Your task to perform on an android device: change notification settings in the gmail app Image 0: 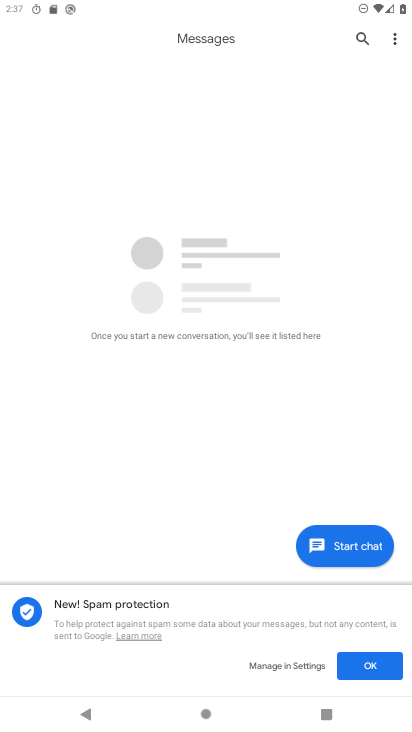
Step 0: press home button
Your task to perform on an android device: change notification settings in the gmail app Image 1: 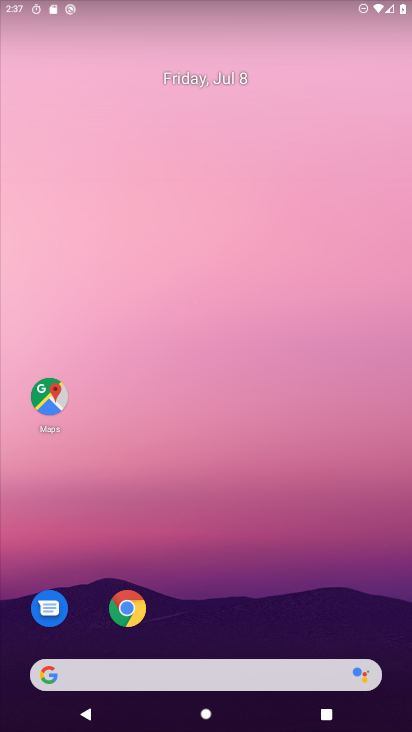
Step 1: drag from (261, 716) to (230, 126)
Your task to perform on an android device: change notification settings in the gmail app Image 2: 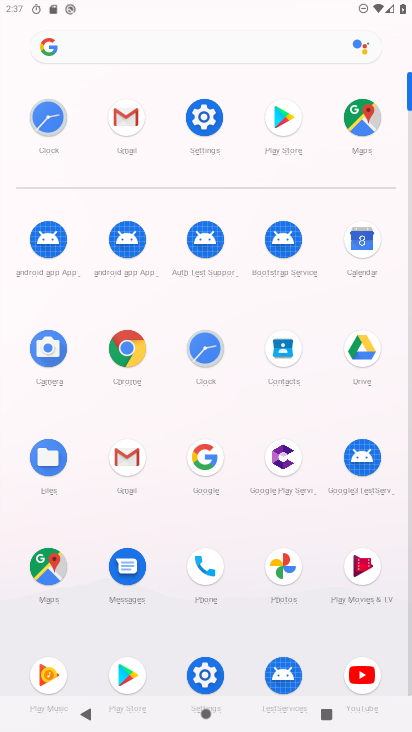
Step 2: click (124, 455)
Your task to perform on an android device: change notification settings in the gmail app Image 3: 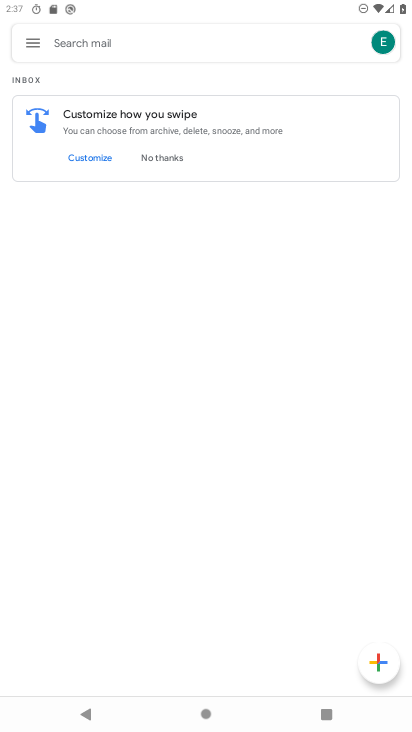
Step 3: click (36, 43)
Your task to perform on an android device: change notification settings in the gmail app Image 4: 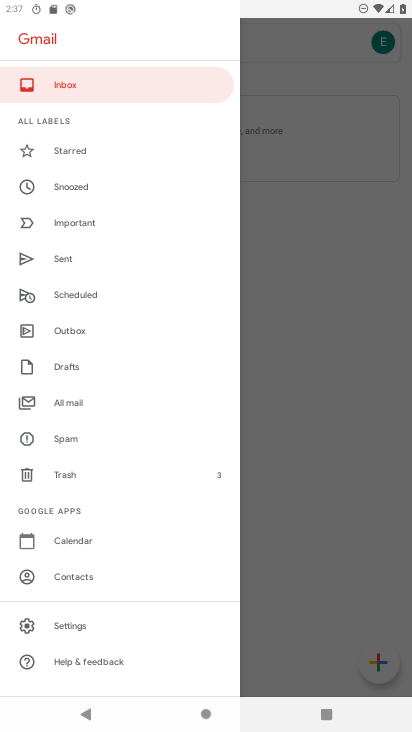
Step 4: click (74, 625)
Your task to perform on an android device: change notification settings in the gmail app Image 5: 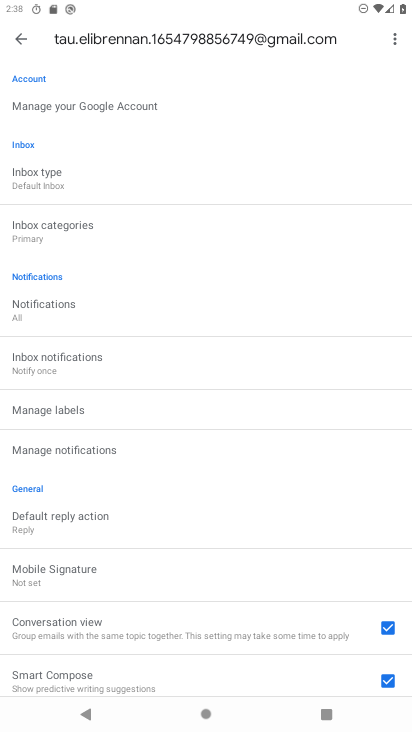
Step 5: click (54, 301)
Your task to perform on an android device: change notification settings in the gmail app Image 6: 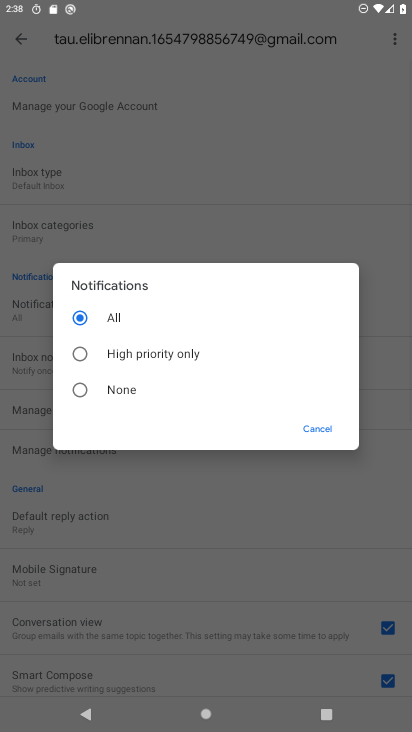
Step 6: click (86, 387)
Your task to perform on an android device: change notification settings in the gmail app Image 7: 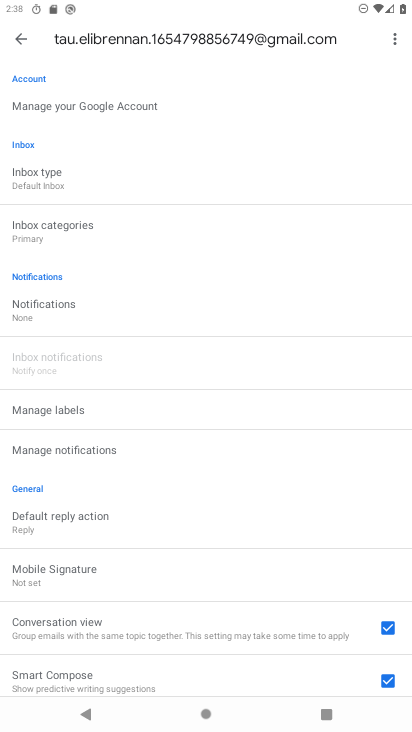
Step 7: task complete